Your task to perform on an android device: Show me productivity apps on the Play Store Image 0: 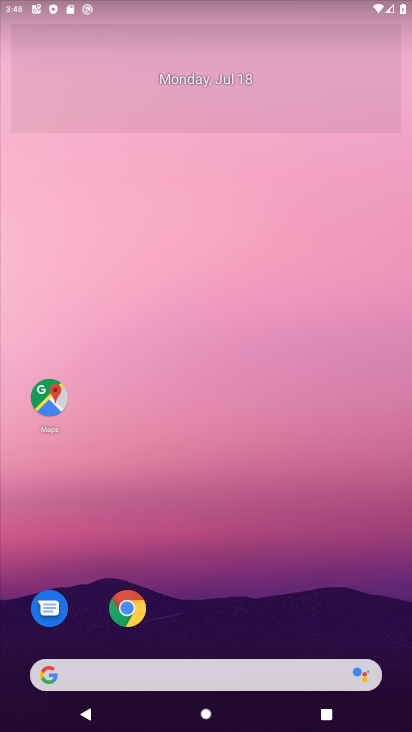
Step 0: drag from (256, 498) to (284, 106)
Your task to perform on an android device: Show me productivity apps on the Play Store Image 1: 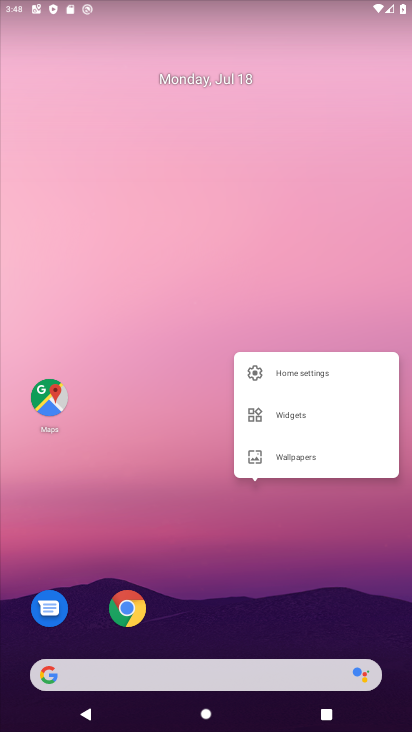
Step 1: drag from (211, 460) to (196, 179)
Your task to perform on an android device: Show me productivity apps on the Play Store Image 2: 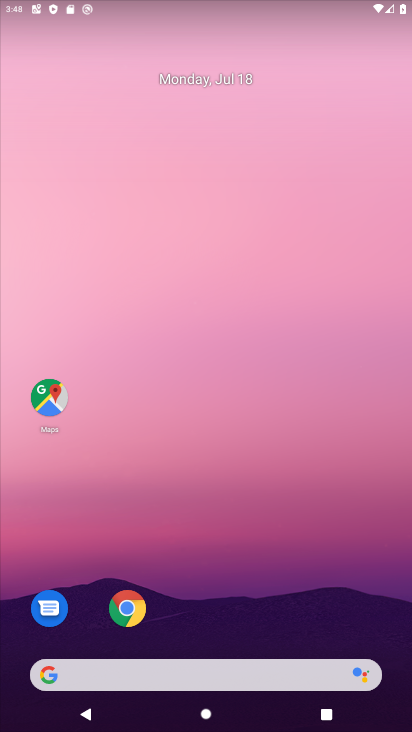
Step 2: drag from (216, 463) to (247, 89)
Your task to perform on an android device: Show me productivity apps on the Play Store Image 3: 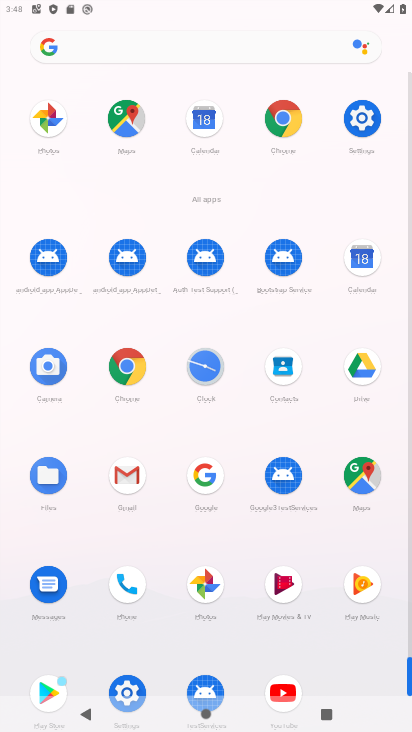
Step 3: click (53, 686)
Your task to perform on an android device: Show me productivity apps on the Play Store Image 4: 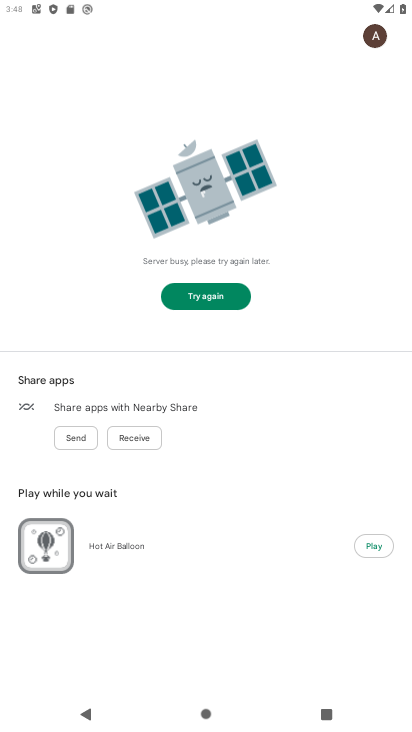
Step 4: task complete